Your task to perform on an android device: Go to calendar. Show me events next week Image 0: 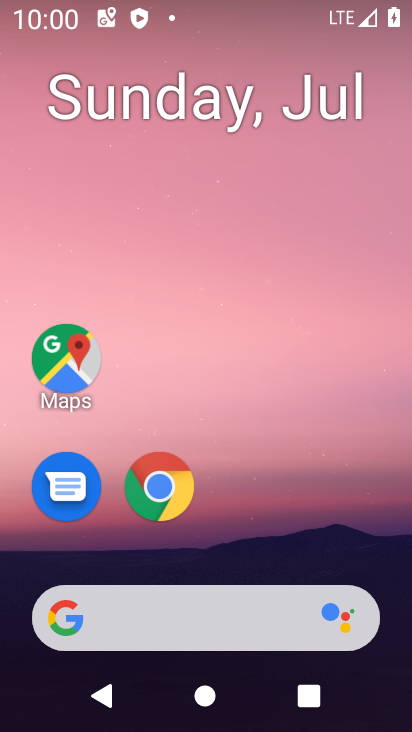
Step 0: drag from (348, 547) to (375, 31)
Your task to perform on an android device: Go to calendar. Show me events next week Image 1: 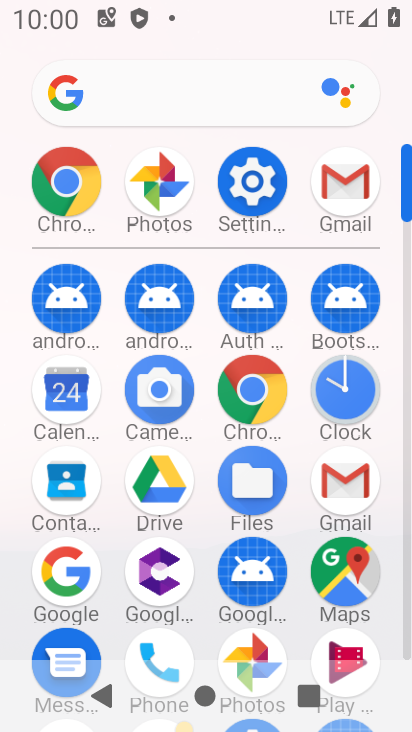
Step 1: click (68, 390)
Your task to perform on an android device: Go to calendar. Show me events next week Image 2: 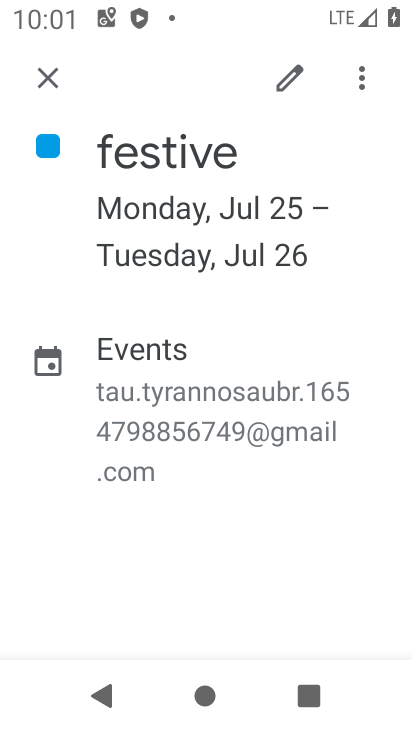
Step 2: press back button
Your task to perform on an android device: Go to calendar. Show me events next week Image 3: 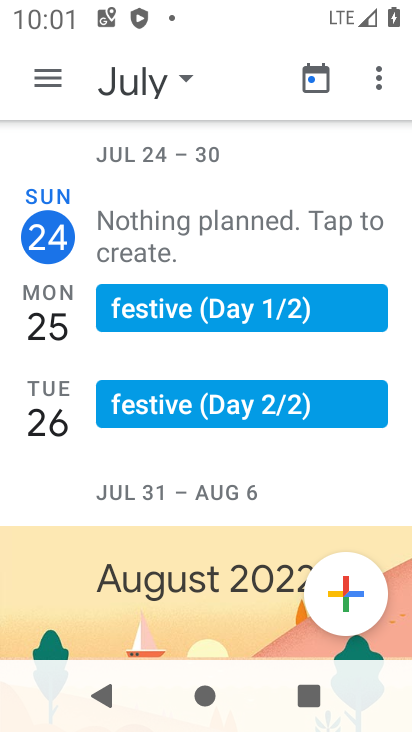
Step 3: drag from (189, 501) to (189, 219)
Your task to perform on an android device: Go to calendar. Show me events next week Image 4: 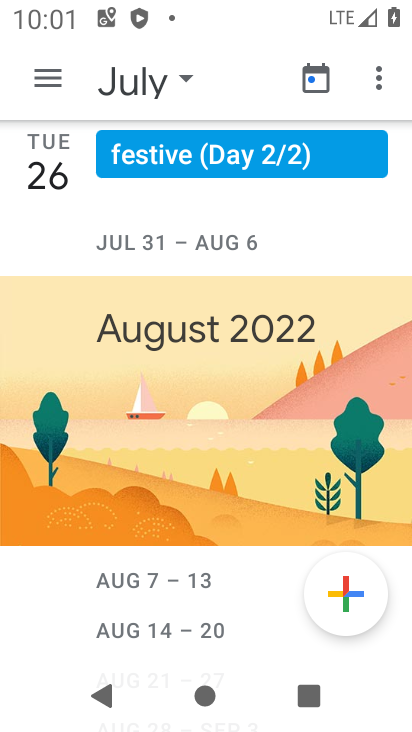
Step 4: drag from (190, 509) to (192, 234)
Your task to perform on an android device: Go to calendar. Show me events next week Image 5: 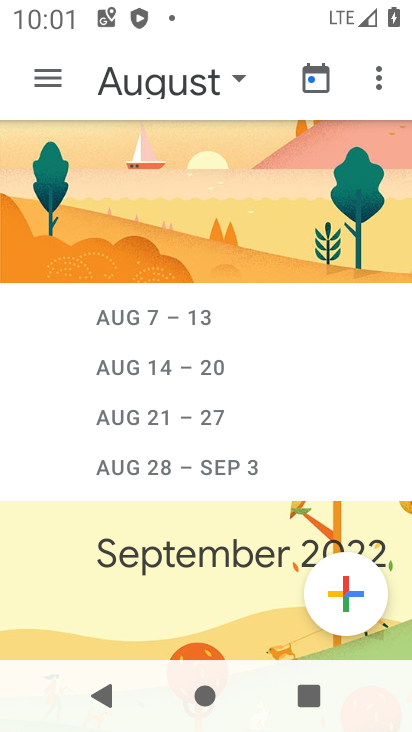
Step 5: click (173, 322)
Your task to perform on an android device: Go to calendar. Show me events next week Image 6: 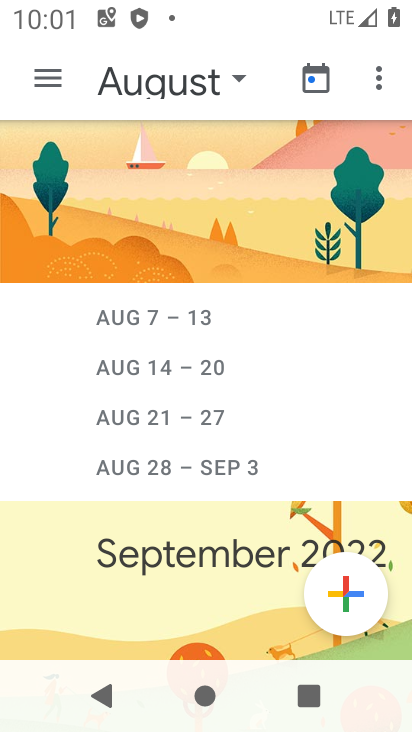
Step 6: click (173, 322)
Your task to perform on an android device: Go to calendar. Show me events next week Image 7: 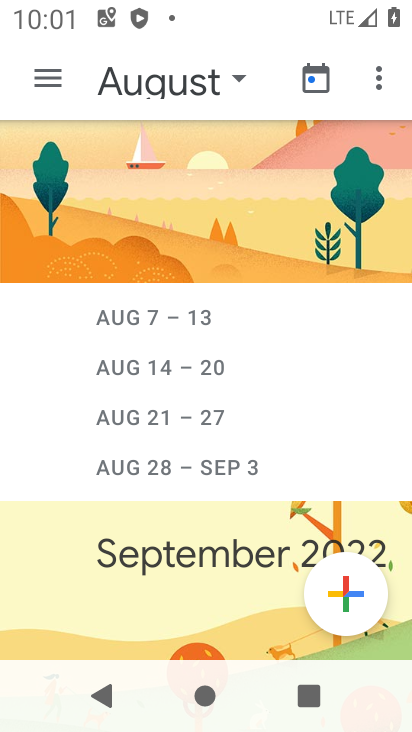
Step 7: click (173, 322)
Your task to perform on an android device: Go to calendar. Show me events next week Image 8: 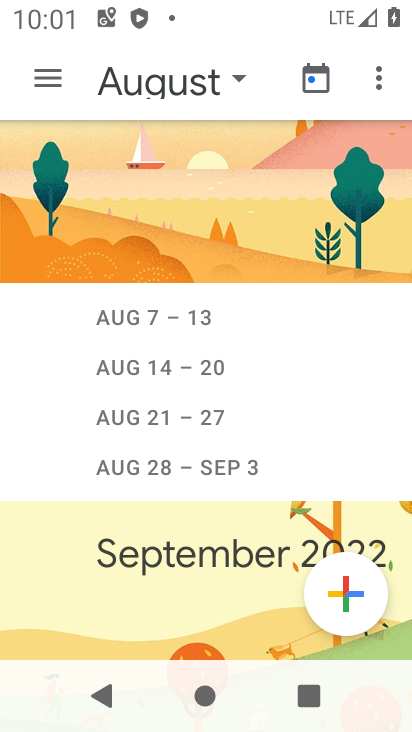
Step 8: click (237, 80)
Your task to perform on an android device: Go to calendar. Show me events next week Image 9: 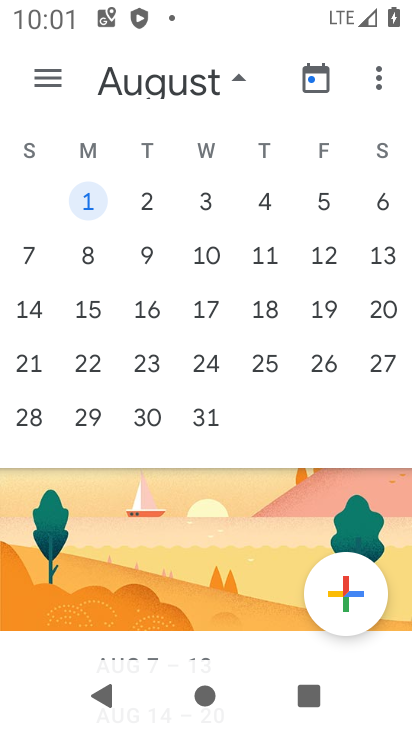
Step 9: click (97, 200)
Your task to perform on an android device: Go to calendar. Show me events next week Image 10: 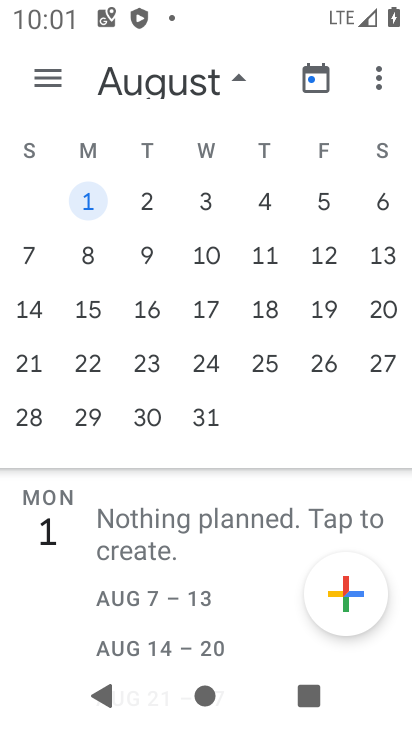
Step 10: task complete